Your task to perform on an android device: turn on showing notifications on the lock screen Image 0: 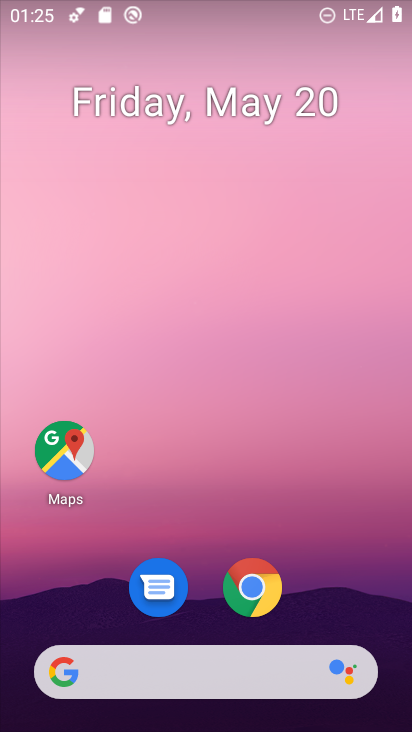
Step 0: drag from (368, 612) to (362, 173)
Your task to perform on an android device: turn on showing notifications on the lock screen Image 1: 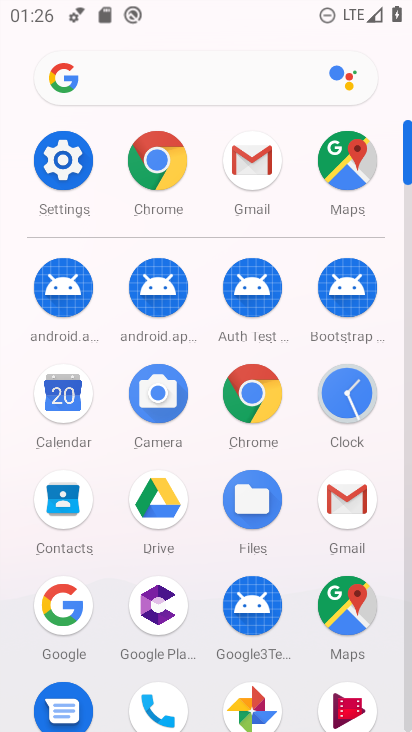
Step 1: click (62, 162)
Your task to perform on an android device: turn on showing notifications on the lock screen Image 2: 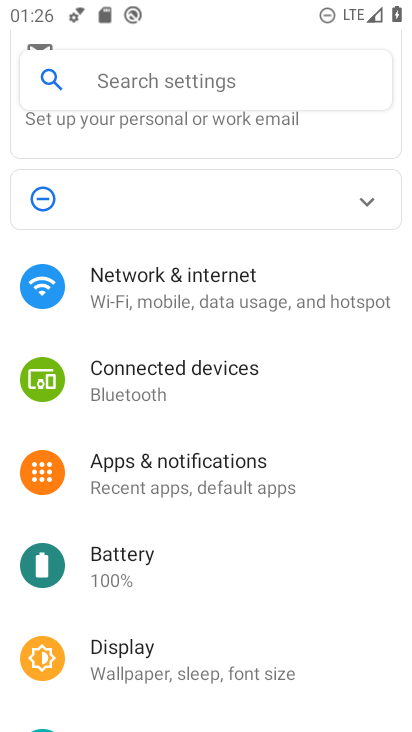
Step 2: drag from (338, 552) to (355, 369)
Your task to perform on an android device: turn on showing notifications on the lock screen Image 3: 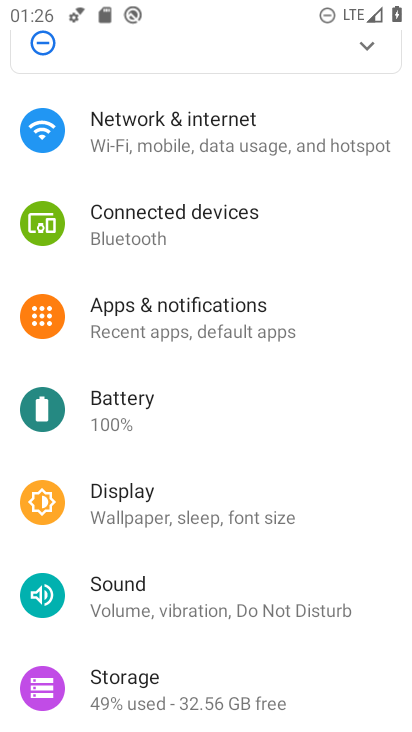
Step 3: drag from (362, 517) to (361, 402)
Your task to perform on an android device: turn on showing notifications on the lock screen Image 4: 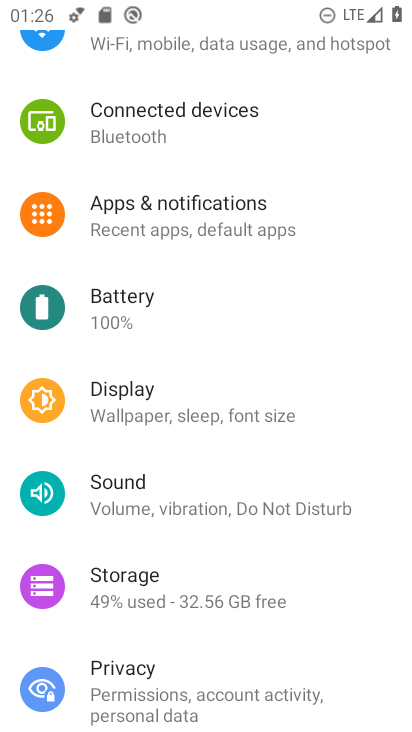
Step 4: click (260, 239)
Your task to perform on an android device: turn on showing notifications on the lock screen Image 5: 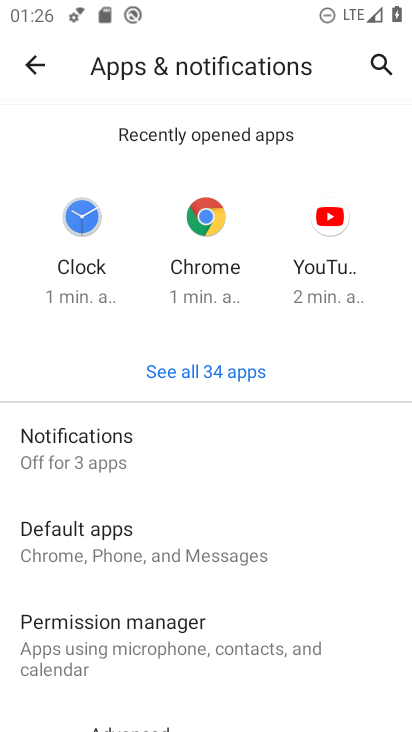
Step 5: drag from (368, 560) to (356, 452)
Your task to perform on an android device: turn on showing notifications on the lock screen Image 6: 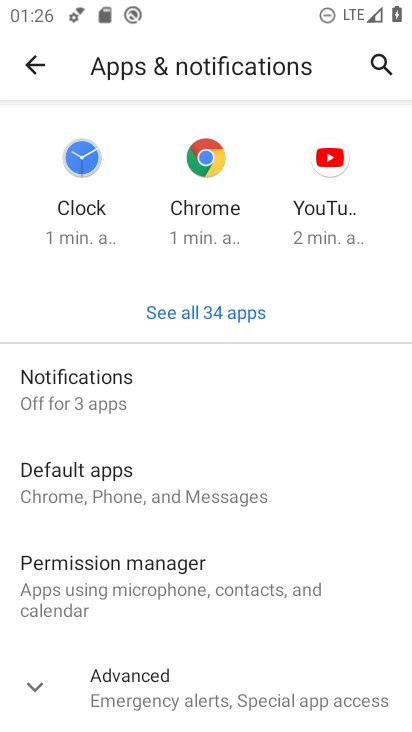
Step 6: click (182, 405)
Your task to perform on an android device: turn on showing notifications on the lock screen Image 7: 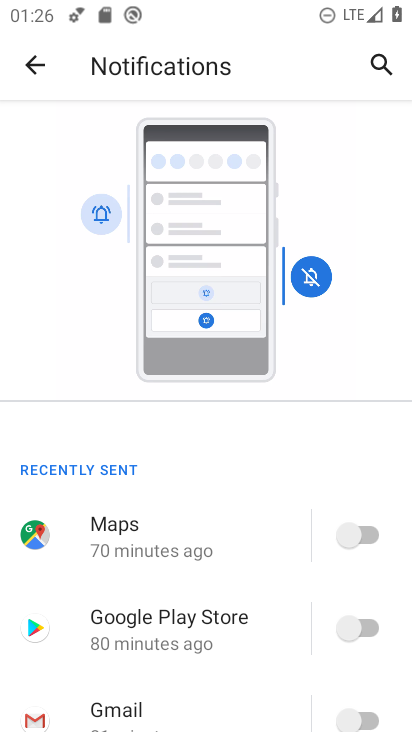
Step 7: drag from (266, 556) to (268, 449)
Your task to perform on an android device: turn on showing notifications on the lock screen Image 8: 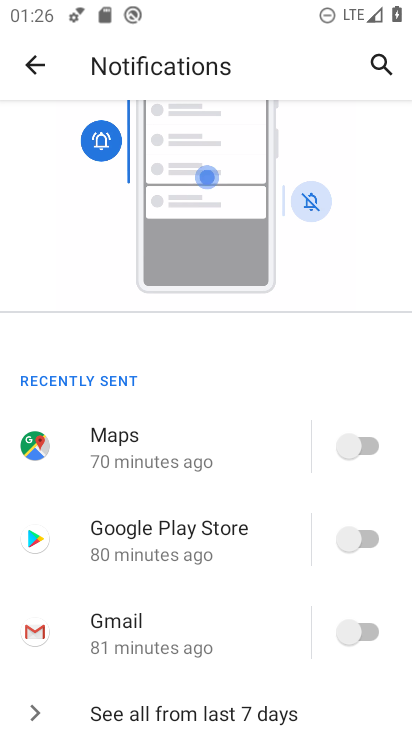
Step 8: drag from (272, 623) to (277, 534)
Your task to perform on an android device: turn on showing notifications on the lock screen Image 9: 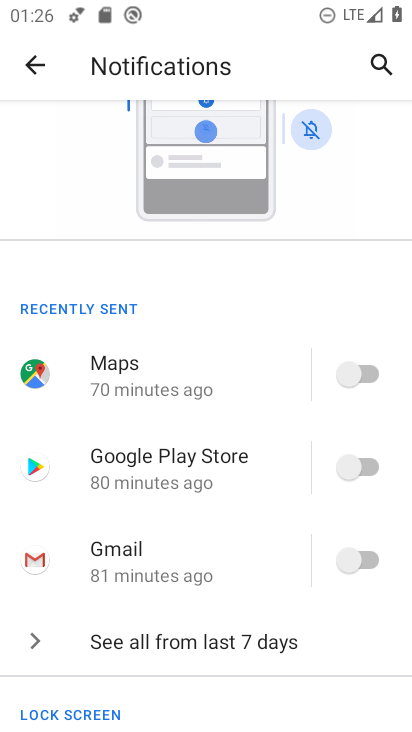
Step 9: drag from (267, 665) to (264, 571)
Your task to perform on an android device: turn on showing notifications on the lock screen Image 10: 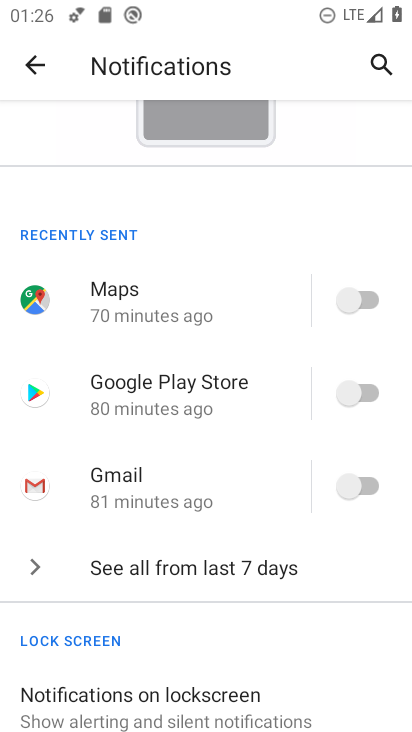
Step 10: drag from (255, 667) to (261, 601)
Your task to perform on an android device: turn on showing notifications on the lock screen Image 11: 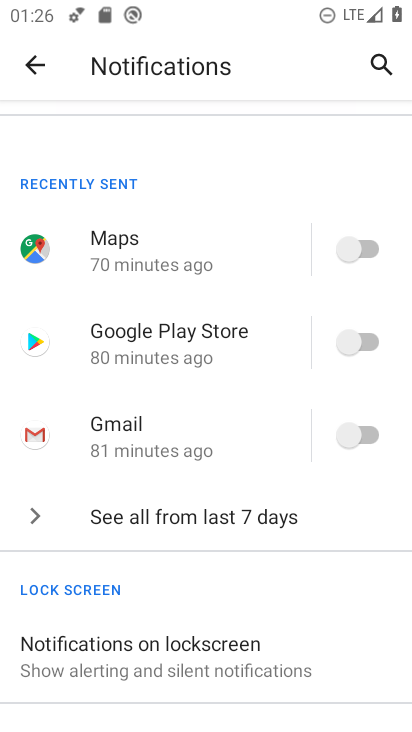
Step 11: click (251, 669)
Your task to perform on an android device: turn on showing notifications on the lock screen Image 12: 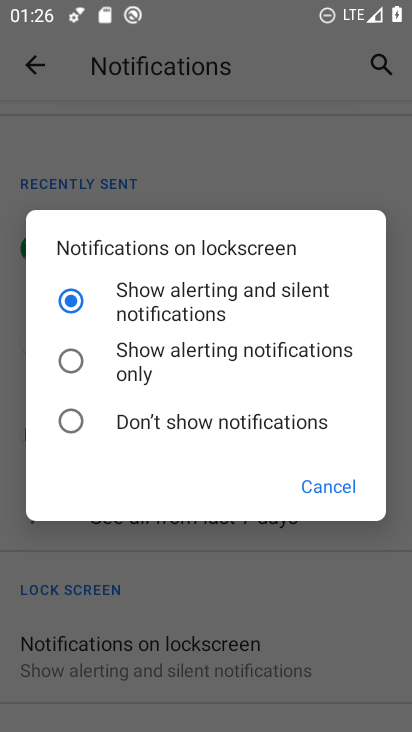
Step 12: task complete